Your task to perform on an android device: Open Chrome and go to the settings page Image 0: 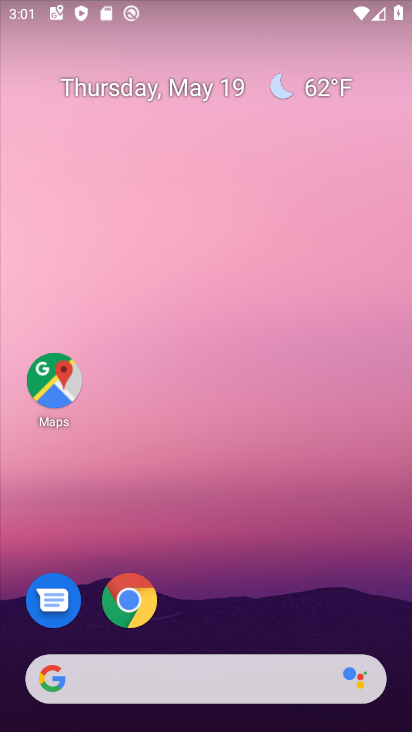
Step 0: click (131, 609)
Your task to perform on an android device: Open Chrome and go to the settings page Image 1: 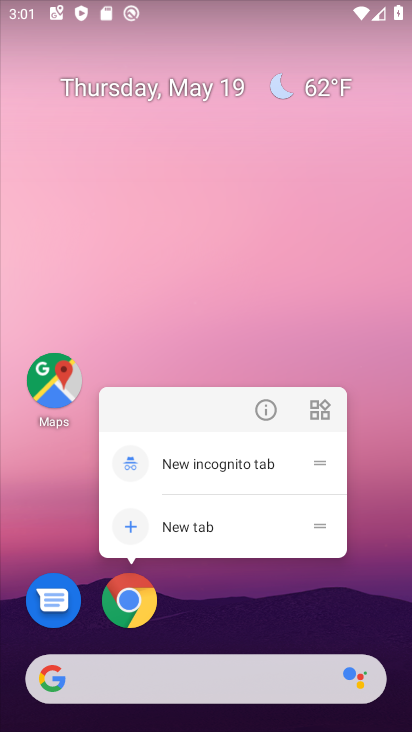
Step 1: click (129, 597)
Your task to perform on an android device: Open Chrome and go to the settings page Image 2: 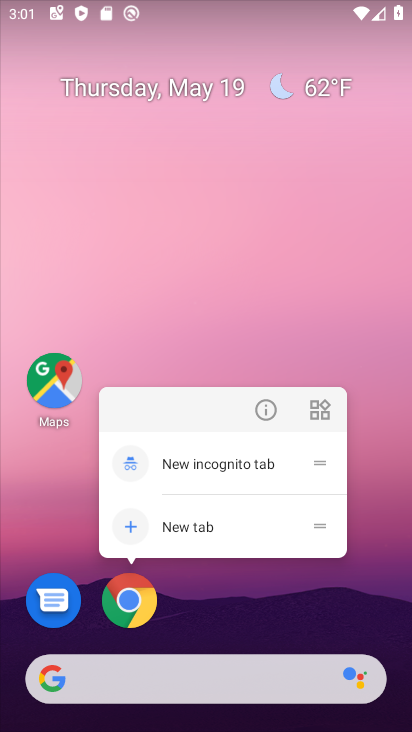
Step 2: click (131, 591)
Your task to perform on an android device: Open Chrome and go to the settings page Image 3: 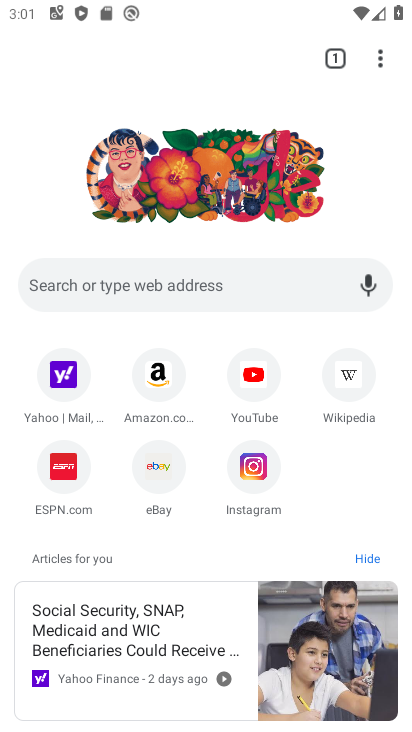
Step 3: click (384, 52)
Your task to perform on an android device: Open Chrome and go to the settings page Image 4: 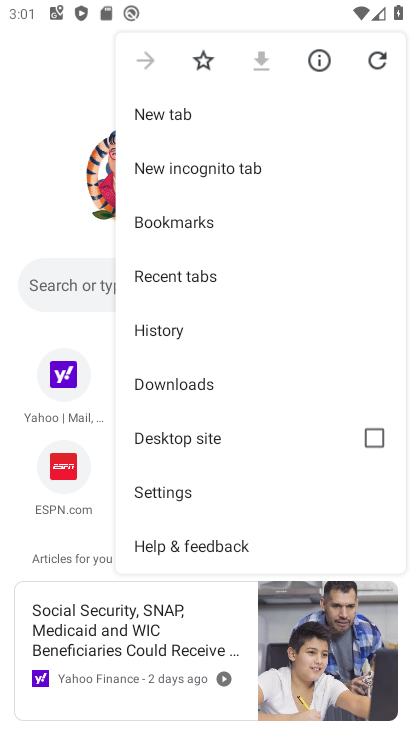
Step 4: click (197, 488)
Your task to perform on an android device: Open Chrome and go to the settings page Image 5: 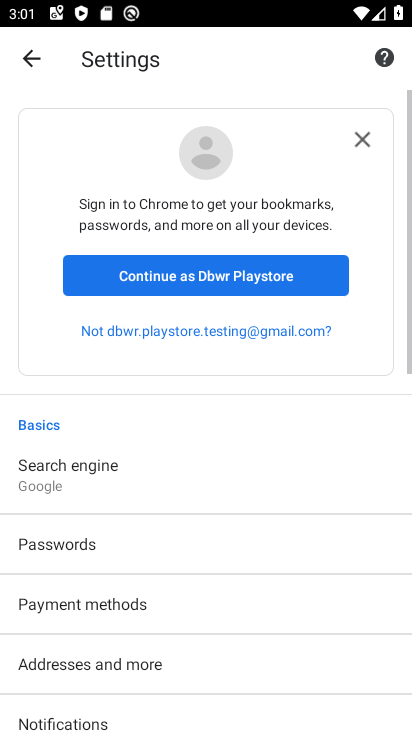
Step 5: task complete